Your task to perform on an android device: Open Maps and search for coffee Image 0: 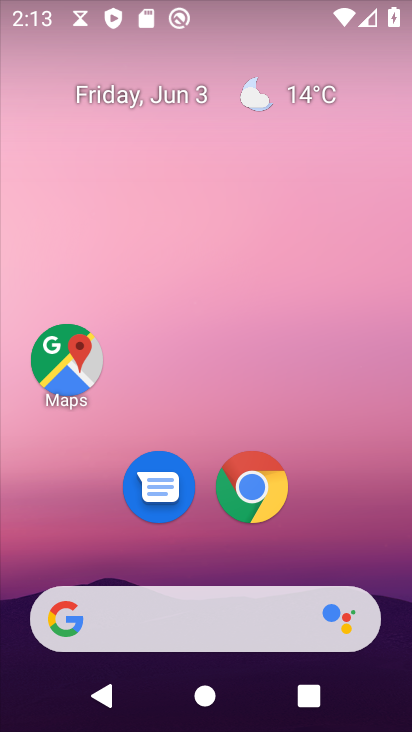
Step 0: click (78, 357)
Your task to perform on an android device: Open Maps and search for coffee Image 1: 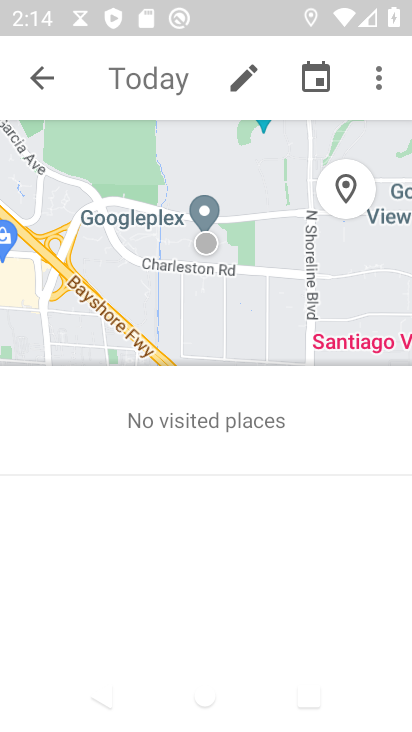
Step 1: click (39, 73)
Your task to perform on an android device: Open Maps and search for coffee Image 2: 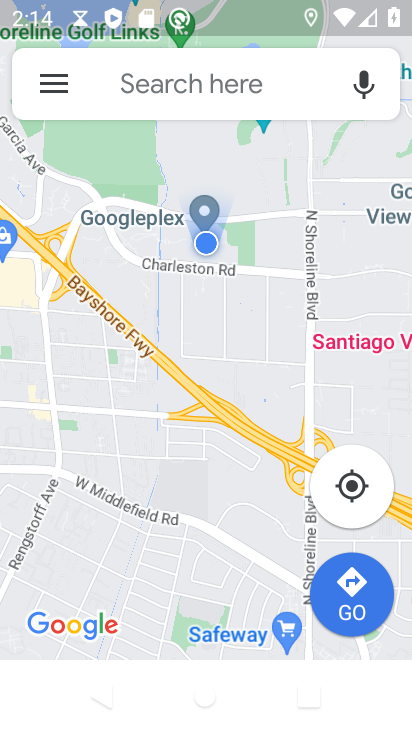
Step 2: click (205, 87)
Your task to perform on an android device: Open Maps and search for coffee Image 3: 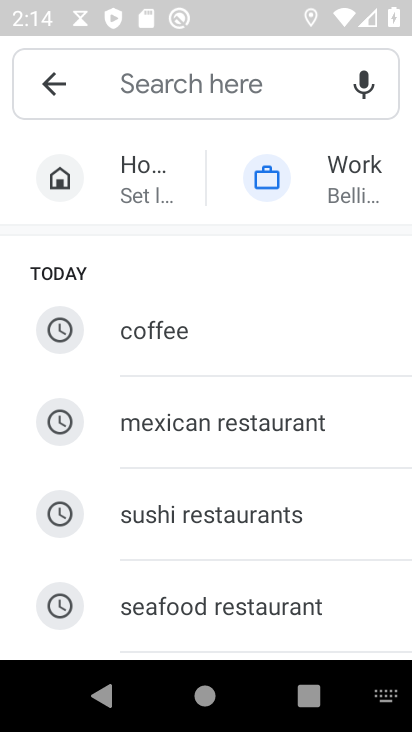
Step 3: type "coffee"
Your task to perform on an android device: Open Maps and search for coffee Image 4: 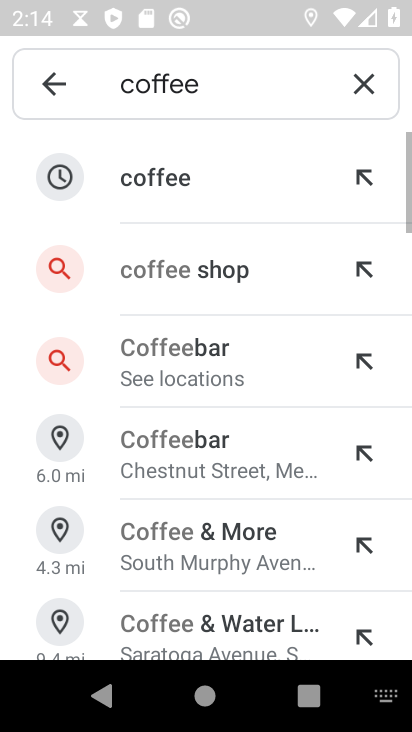
Step 4: click (210, 173)
Your task to perform on an android device: Open Maps and search for coffee Image 5: 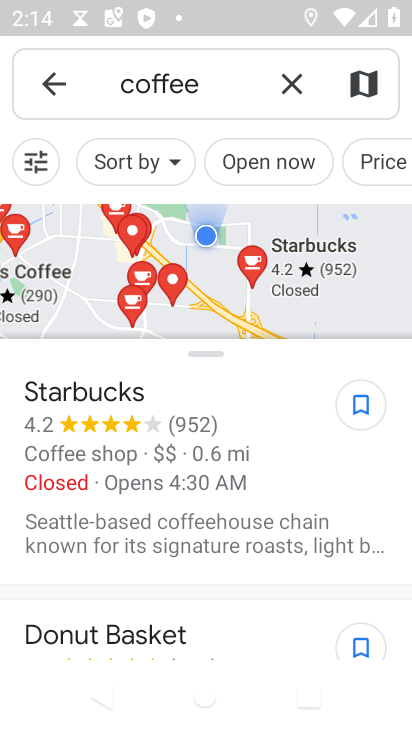
Step 5: task complete